Your task to perform on an android device: toggle translation in the chrome app Image 0: 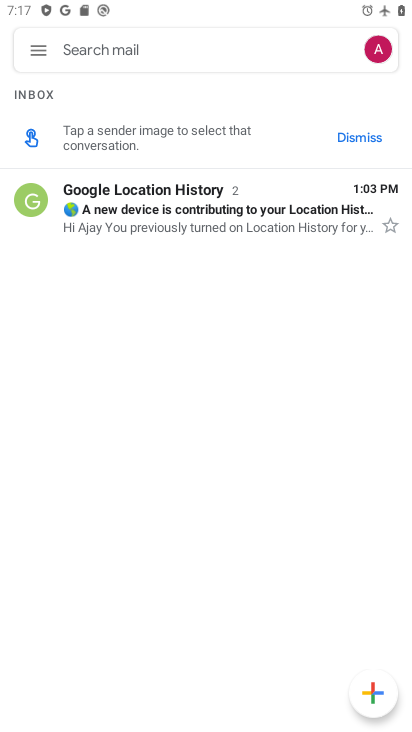
Step 0: press home button
Your task to perform on an android device: toggle translation in the chrome app Image 1: 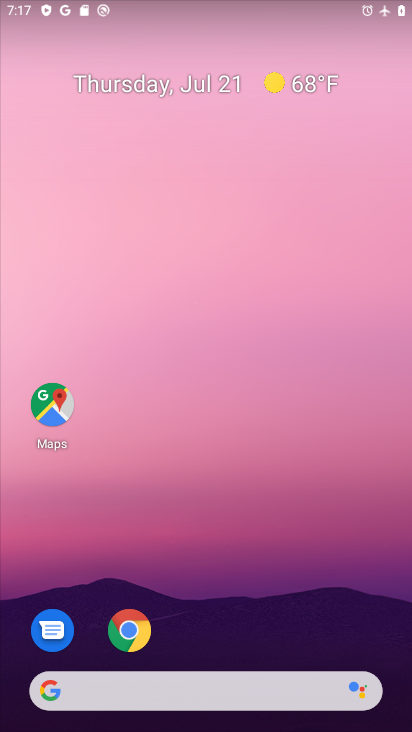
Step 1: drag from (251, 587) to (250, 91)
Your task to perform on an android device: toggle translation in the chrome app Image 2: 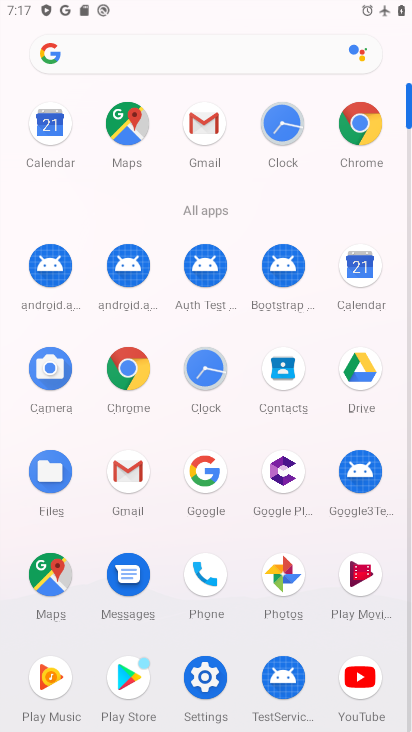
Step 2: click (352, 135)
Your task to perform on an android device: toggle translation in the chrome app Image 3: 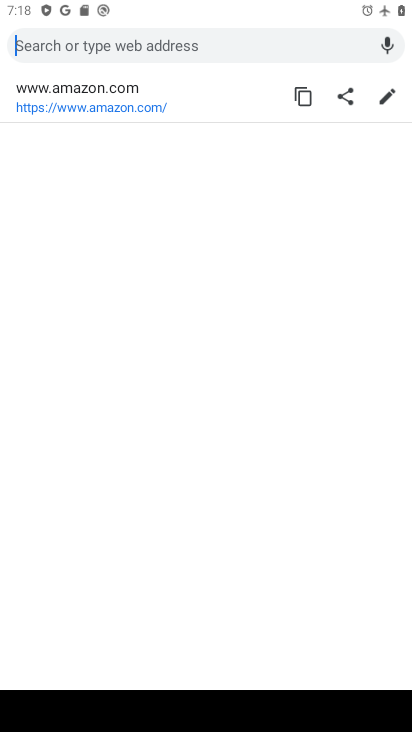
Step 3: press back button
Your task to perform on an android device: toggle translation in the chrome app Image 4: 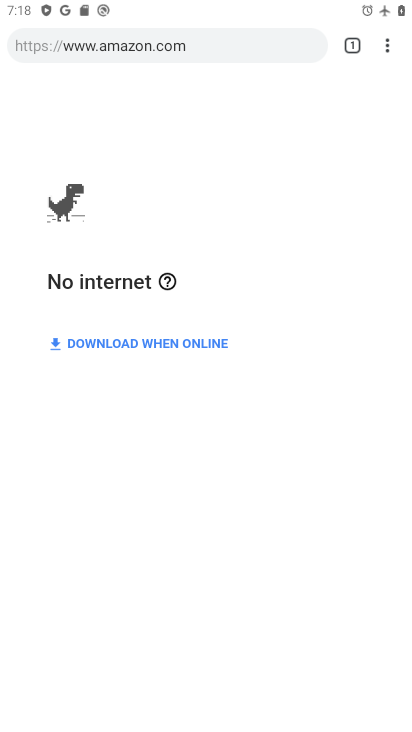
Step 4: drag from (394, 56) to (214, 522)
Your task to perform on an android device: toggle translation in the chrome app Image 5: 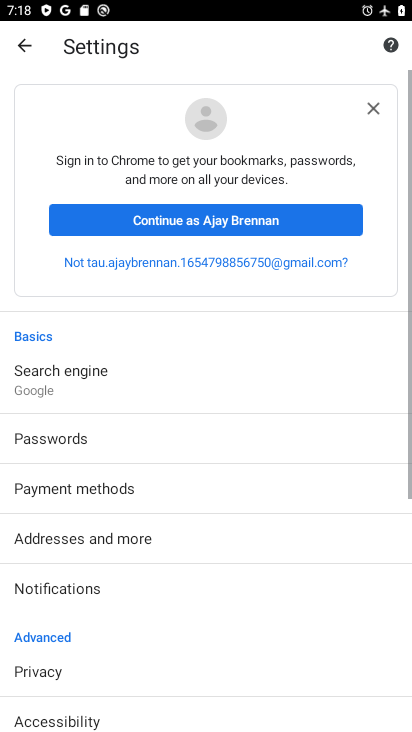
Step 5: drag from (101, 673) to (189, 218)
Your task to perform on an android device: toggle translation in the chrome app Image 6: 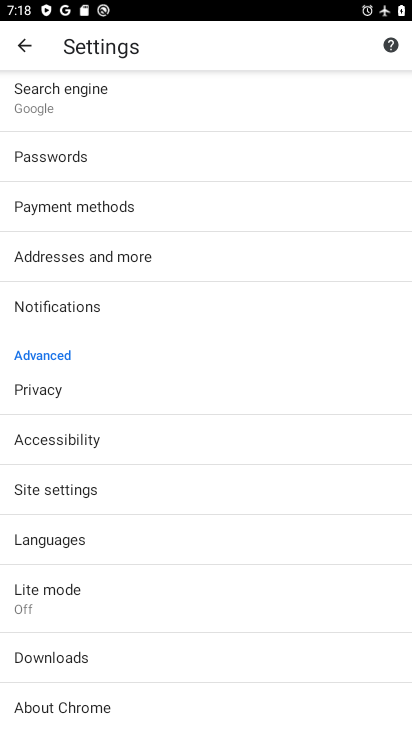
Step 6: click (29, 545)
Your task to perform on an android device: toggle translation in the chrome app Image 7: 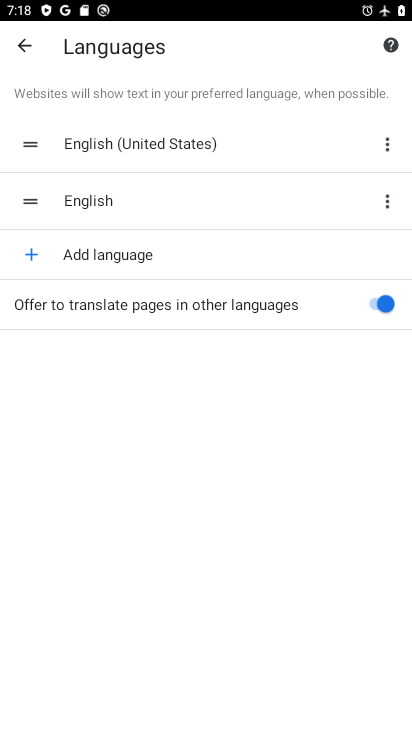
Step 7: click (385, 315)
Your task to perform on an android device: toggle translation in the chrome app Image 8: 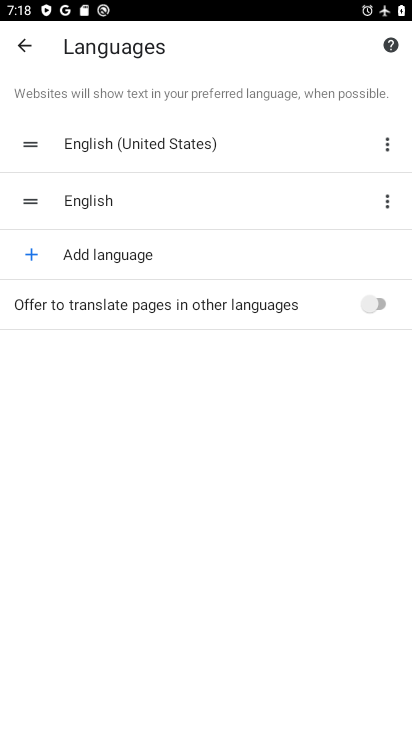
Step 8: task complete